Your task to perform on an android device: Go to eBay Image 0: 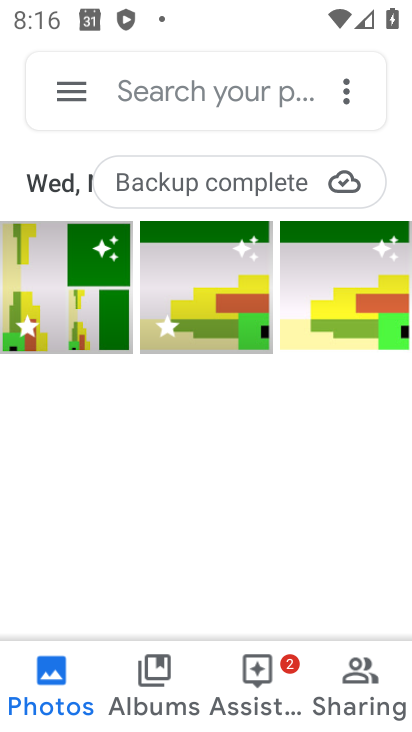
Step 0: press home button
Your task to perform on an android device: Go to eBay Image 1: 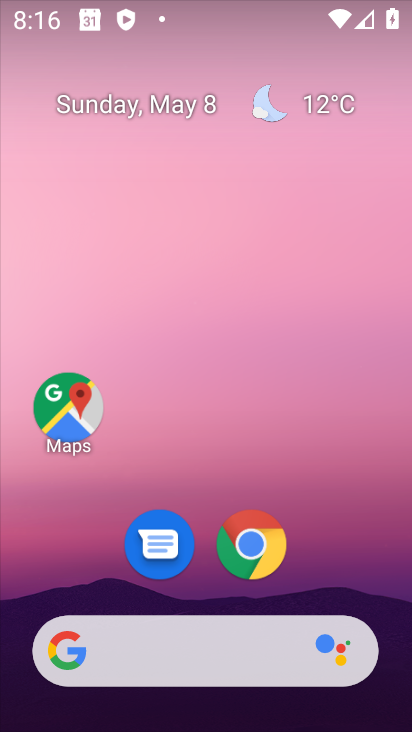
Step 1: click (251, 546)
Your task to perform on an android device: Go to eBay Image 2: 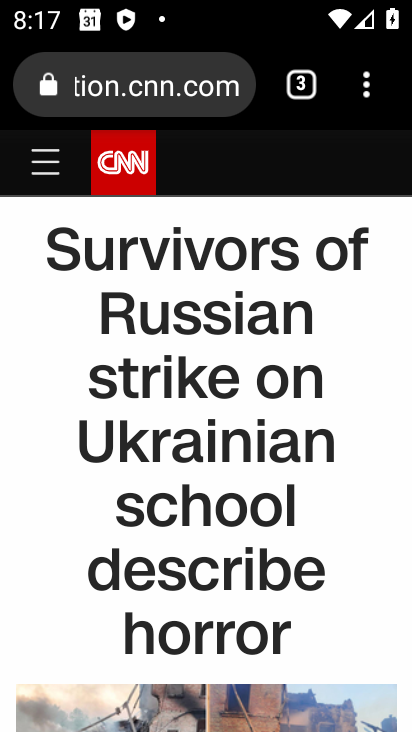
Step 2: click (368, 82)
Your task to perform on an android device: Go to eBay Image 3: 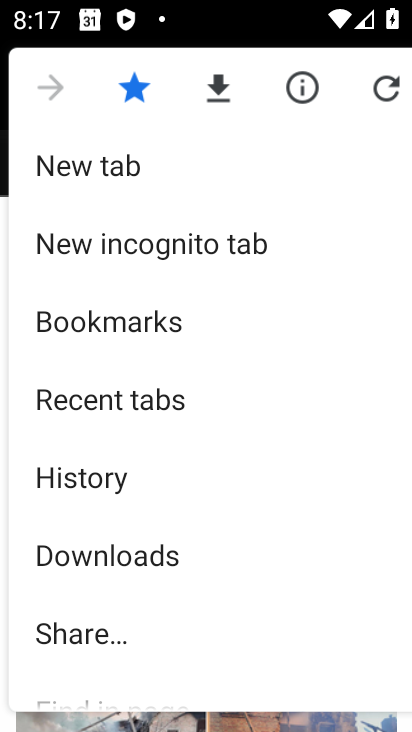
Step 3: click (103, 169)
Your task to perform on an android device: Go to eBay Image 4: 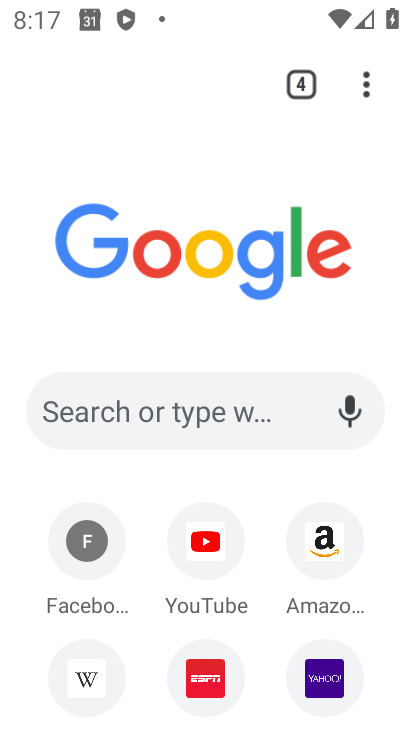
Step 4: drag from (267, 646) to (195, 359)
Your task to perform on an android device: Go to eBay Image 5: 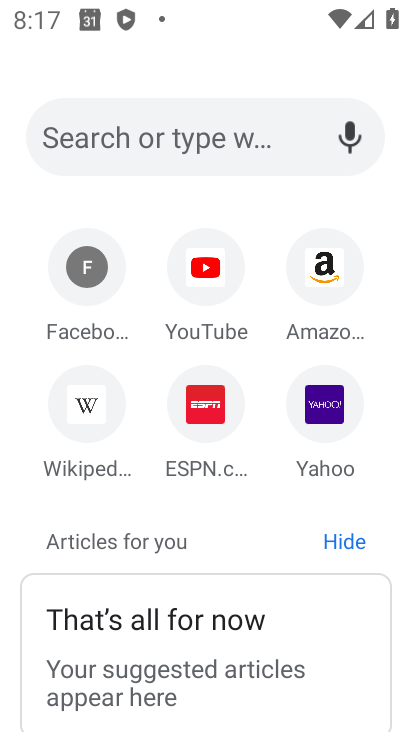
Step 5: click (119, 144)
Your task to perform on an android device: Go to eBay Image 6: 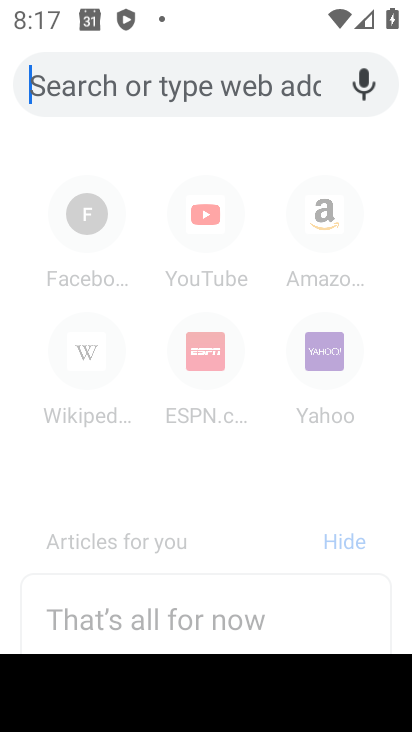
Step 6: type "ebay"
Your task to perform on an android device: Go to eBay Image 7: 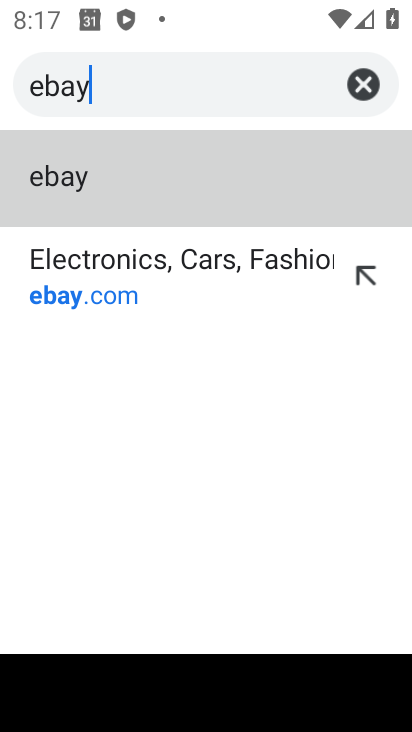
Step 7: click (73, 168)
Your task to perform on an android device: Go to eBay Image 8: 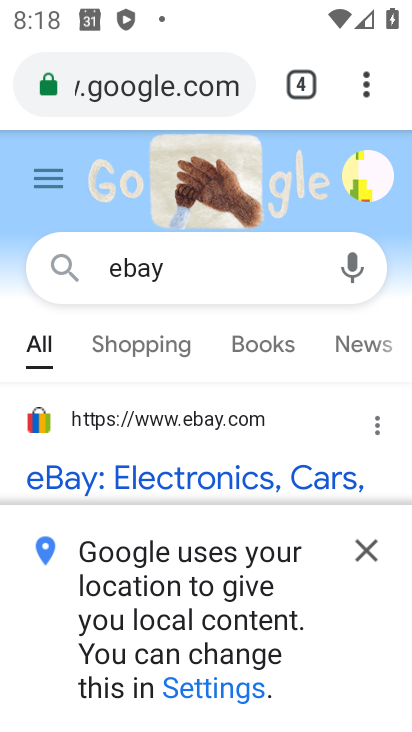
Step 8: task complete